Your task to perform on an android device: View the shopping cart on bestbuy.com. Add "macbook pro 15 inch" to the cart on bestbuy.com Image 0: 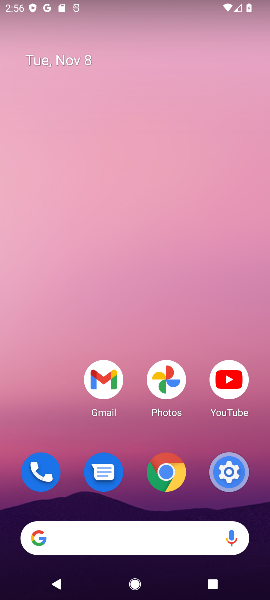
Step 0: click (91, 534)
Your task to perform on an android device: View the shopping cart on bestbuy.com. Add "macbook pro 15 inch" to the cart on bestbuy.com Image 1: 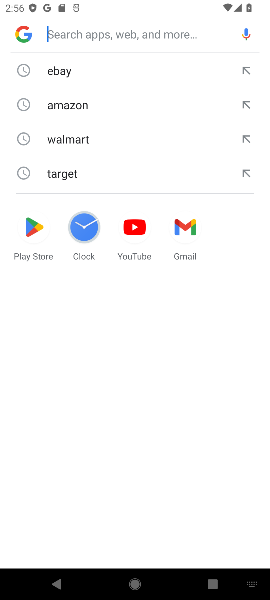
Step 1: type "bestbuy"
Your task to perform on an android device: View the shopping cart on bestbuy.com. Add "macbook pro 15 inch" to the cart on bestbuy.com Image 2: 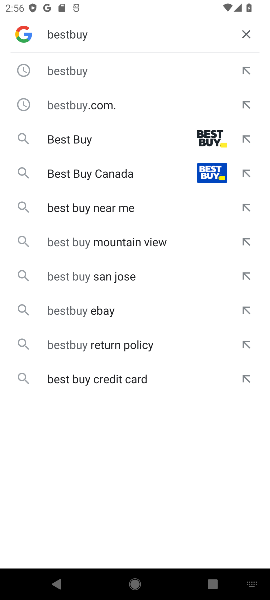
Step 2: click (129, 142)
Your task to perform on an android device: View the shopping cart on bestbuy.com. Add "macbook pro 15 inch" to the cart on bestbuy.com Image 3: 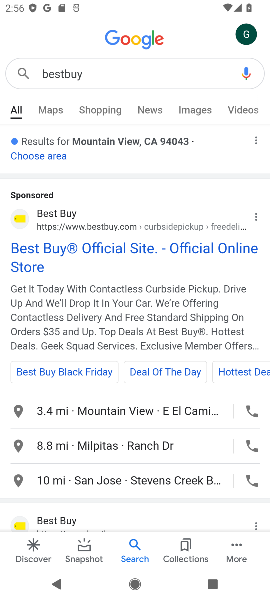
Step 3: click (67, 255)
Your task to perform on an android device: View the shopping cart on bestbuy.com. Add "macbook pro 15 inch" to the cart on bestbuy.com Image 4: 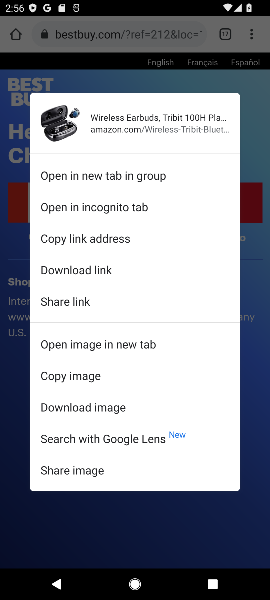
Step 4: click (39, 507)
Your task to perform on an android device: View the shopping cart on bestbuy.com. Add "macbook pro 15 inch" to the cart on bestbuy.com Image 5: 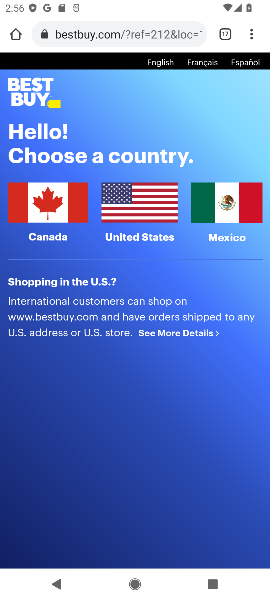
Step 5: click (148, 221)
Your task to perform on an android device: View the shopping cart on bestbuy.com. Add "macbook pro 15 inch" to the cart on bestbuy.com Image 6: 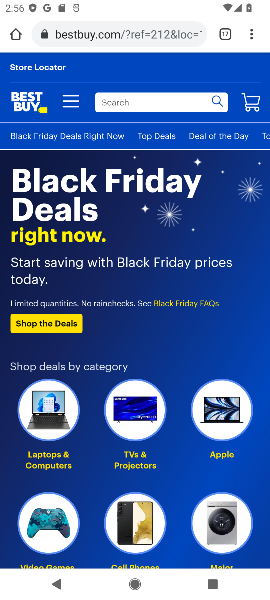
Step 6: task complete